Your task to perform on an android device: Search for "macbook air" on costco.com, select the first entry, and add it to the cart. Image 0: 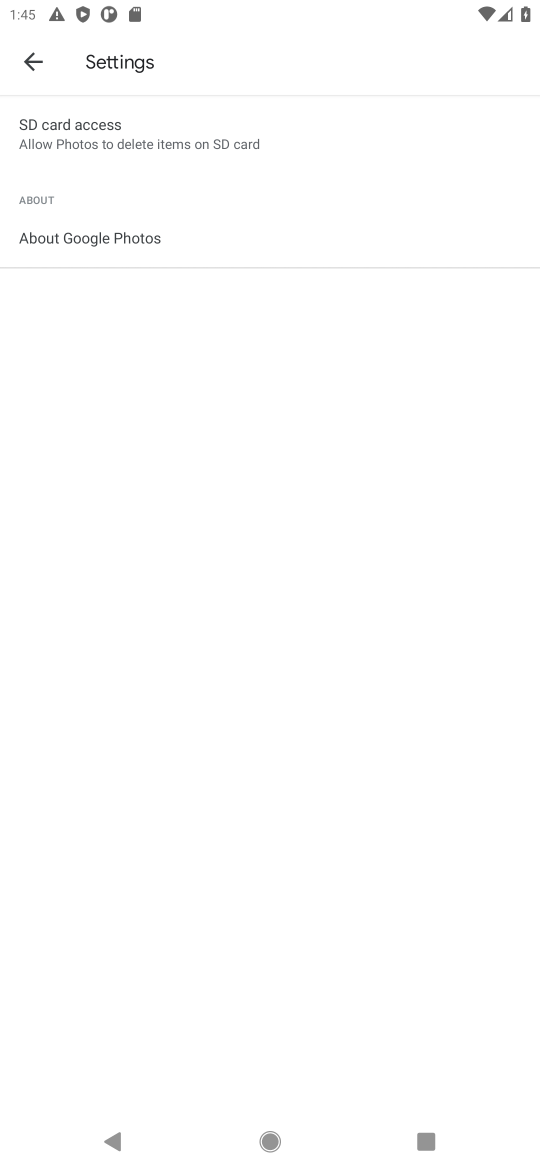
Step 0: press home button
Your task to perform on an android device: Search for "macbook air" on costco.com, select the first entry, and add it to the cart. Image 1: 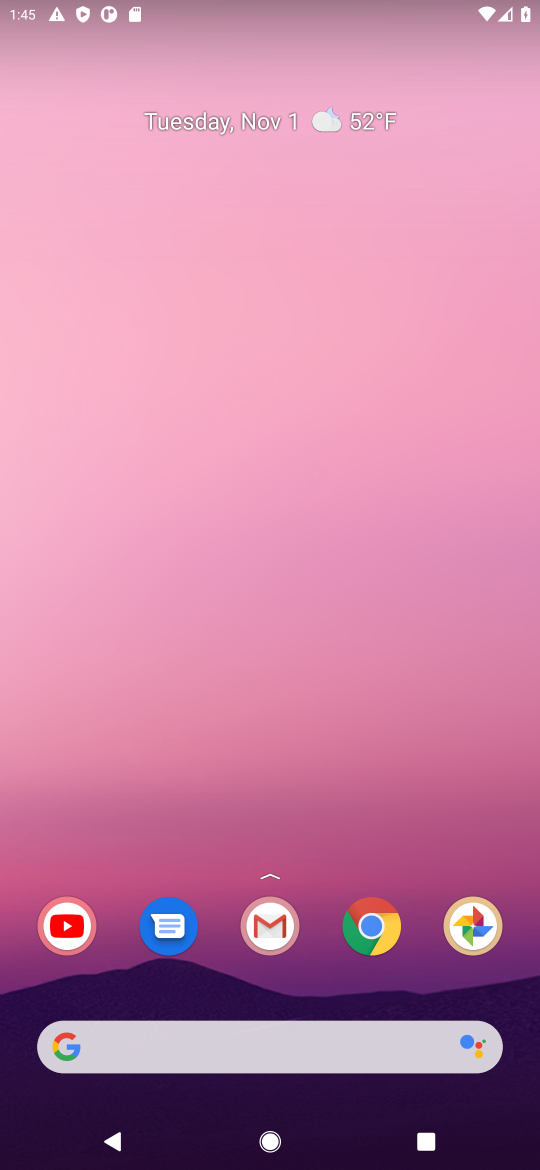
Step 1: click (381, 923)
Your task to perform on an android device: Search for "macbook air" on costco.com, select the first entry, and add it to the cart. Image 2: 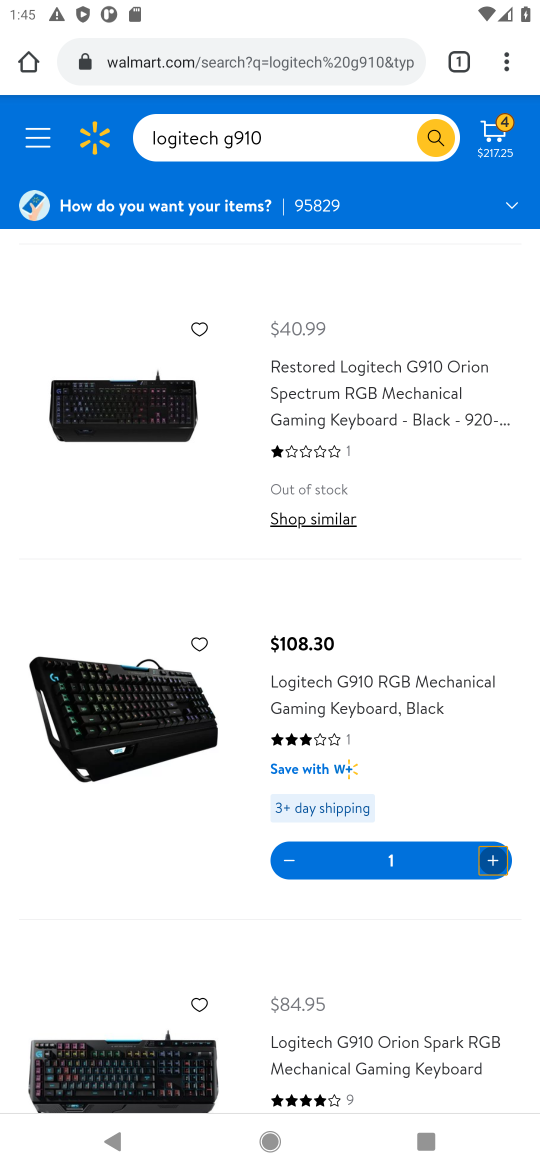
Step 2: click (302, 66)
Your task to perform on an android device: Search for "macbook air" on costco.com, select the first entry, and add it to the cart. Image 3: 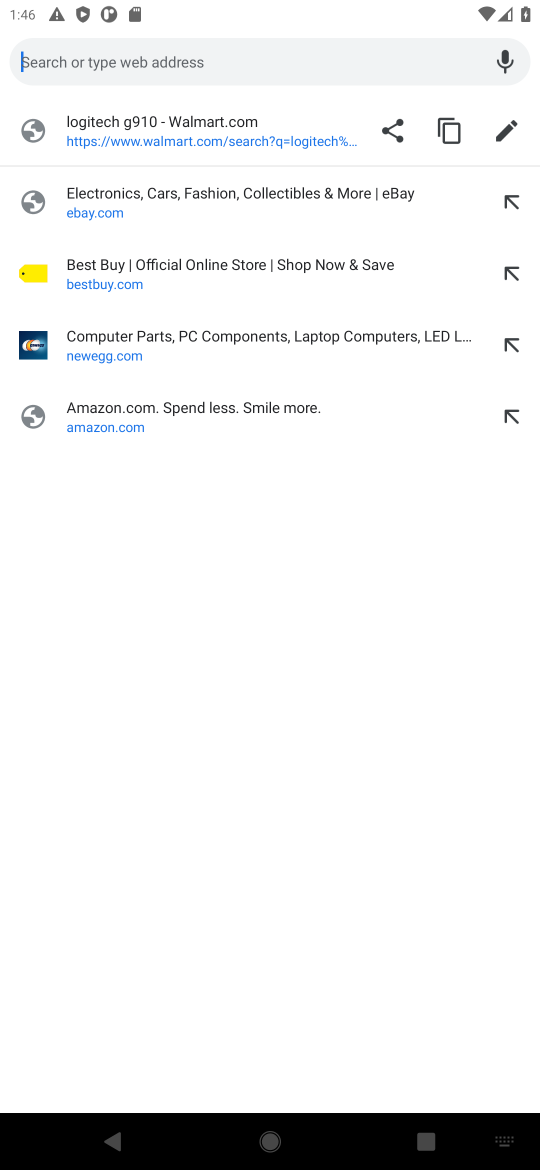
Step 3: type "costco.com"
Your task to perform on an android device: Search for "macbook air" on costco.com, select the first entry, and add it to the cart. Image 4: 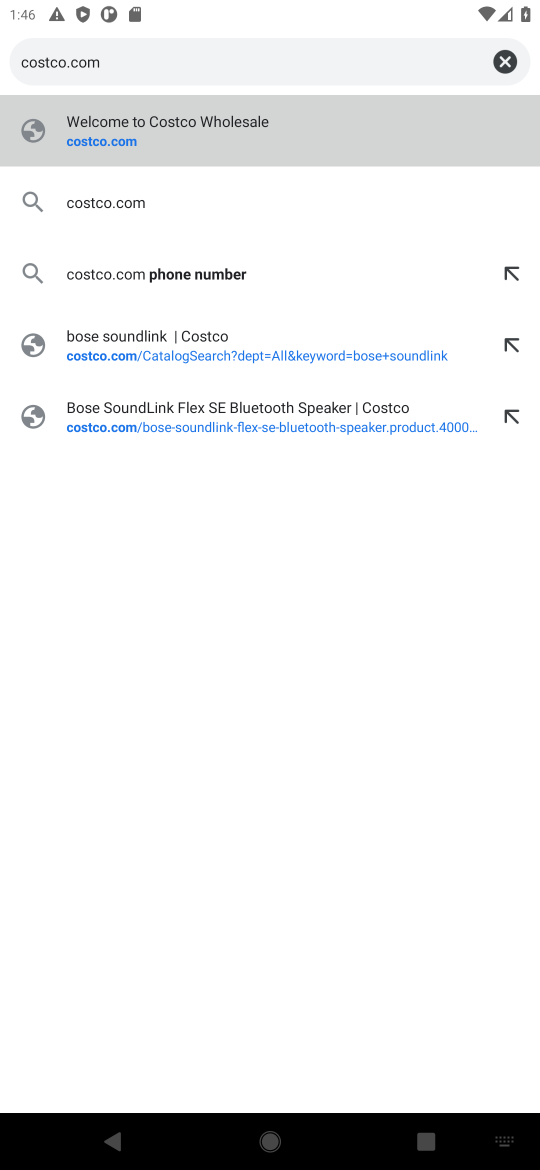
Step 4: click (217, 128)
Your task to perform on an android device: Search for "macbook air" on costco.com, select the first entry, and add it to the cart. Image 5: 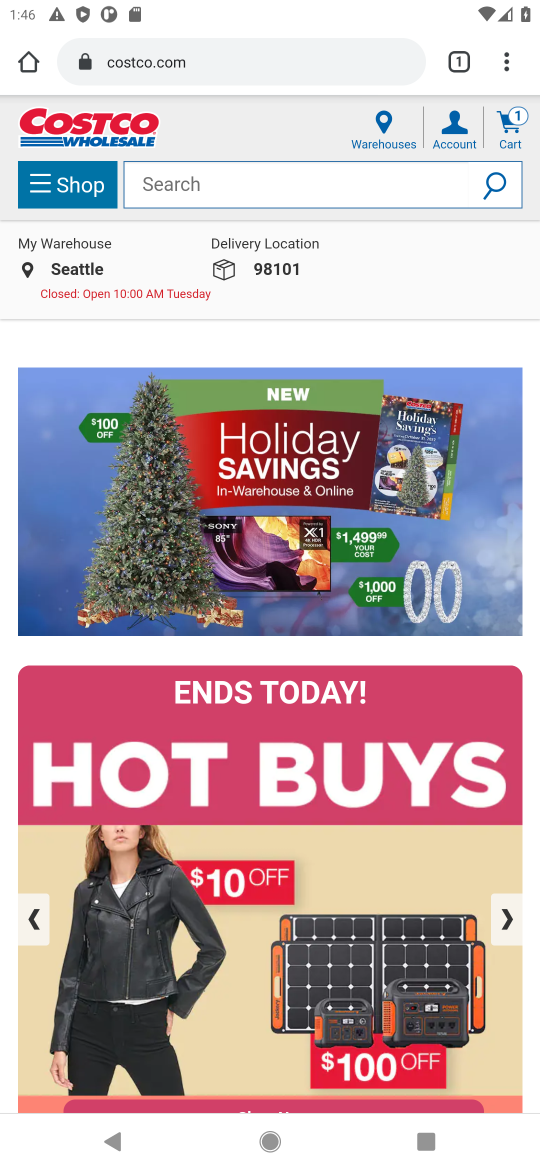
Step 5: click (254, 183)
Your task to perform on an android device: Search for "macbook air" on costco.com, select the first entry, and add it to the cart. Image 6: 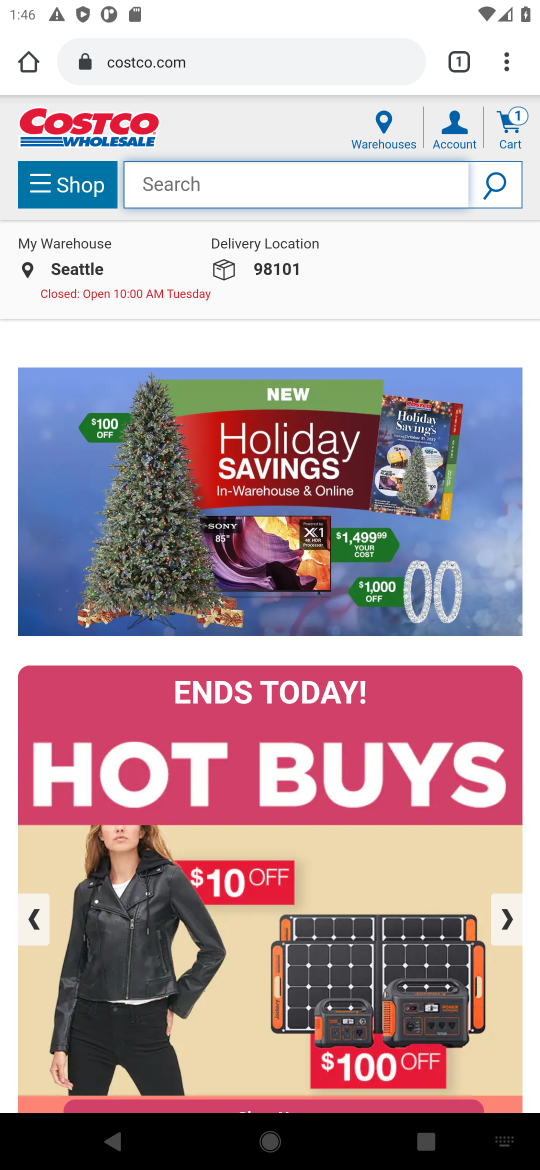
Step 6: type "macbook air"
Your task to perform on an android device: Search for "macbook air" on costco.com, select the first entry, and add it to the cart. Image 7: 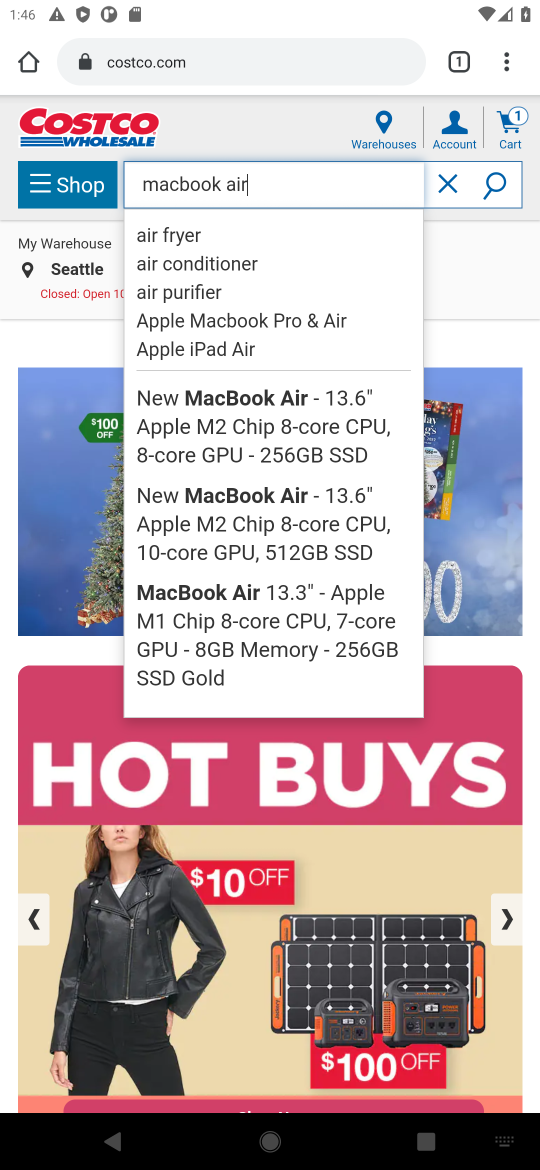
Step 7: press enter
Your task to perform on an android device: Search for "macbook air" on costco.com, select the first entry, and add it to the cart. Image 8: 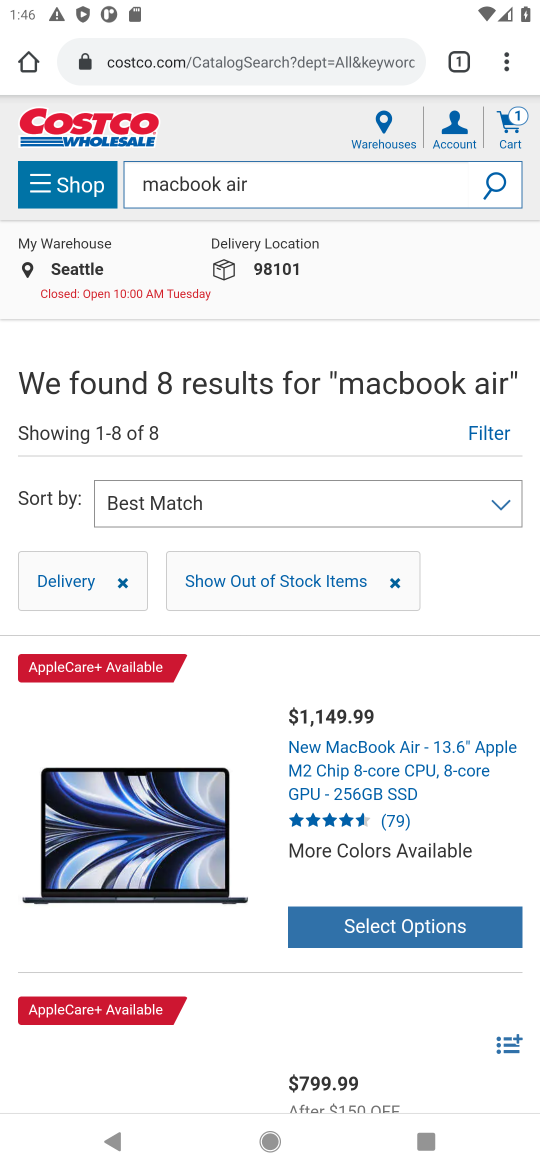
Step 8: drag from (254, 950) to (277, 452)
Your task to perform on an android device: Search for "macbook air" on costco.com, select the first entry, and add it to the cart. Image 9: 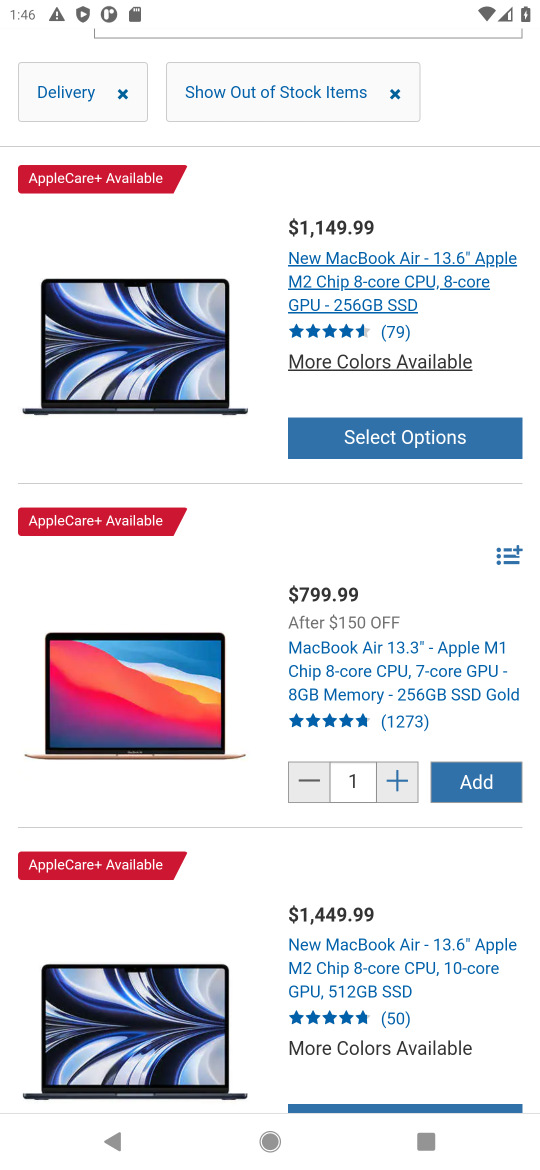
Step 9: click (343, 445)
Your task to perform on an android device: Search for "macbook air" on costco.com, select the first entry, and add it to the cart. Image 10: 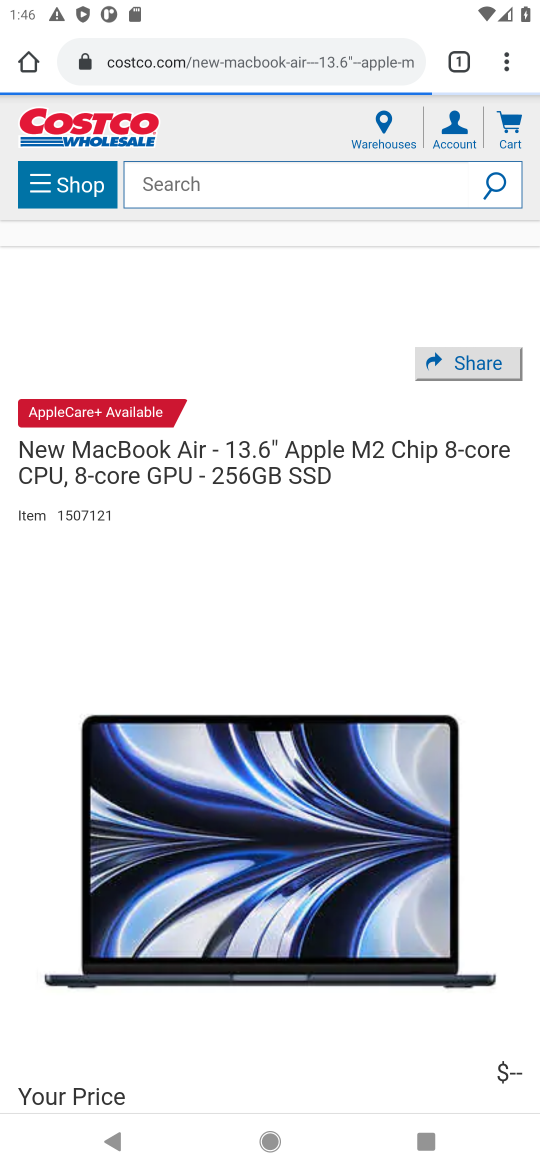
Step 10: drag from (489, 667) to (446, 248)
Your task to perform on an android device: Search for "macbook air" on costco.com, select the first entry, and add it to the cart. Image 11: 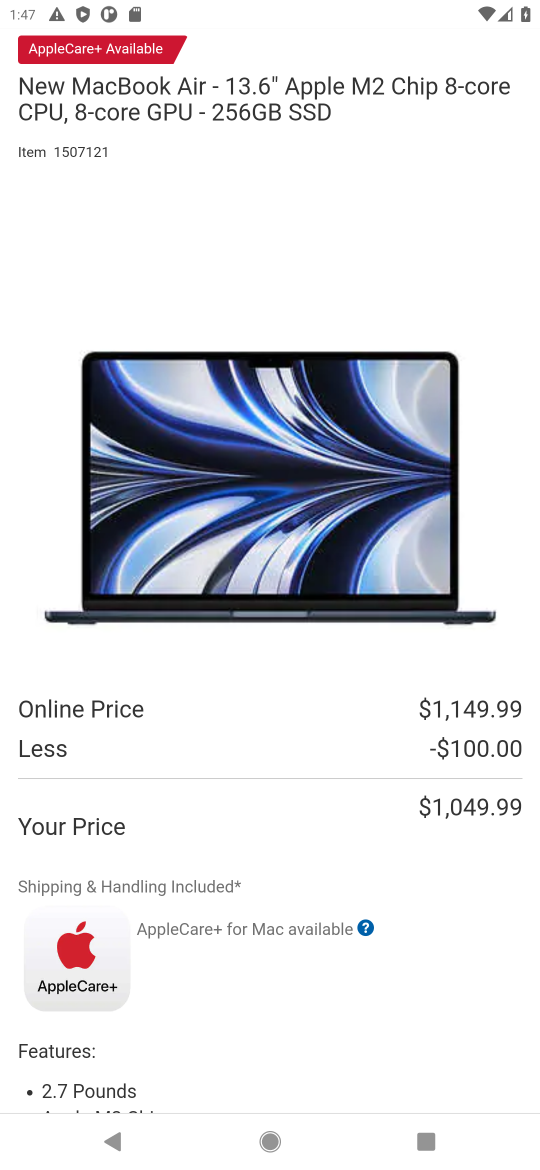
Step 11: drag from (417, 911) to (282, 79)
Your task to perform on an android device: Search for "macbook air" on costco.com, select the first entry, and add it to the cart. Image 12: 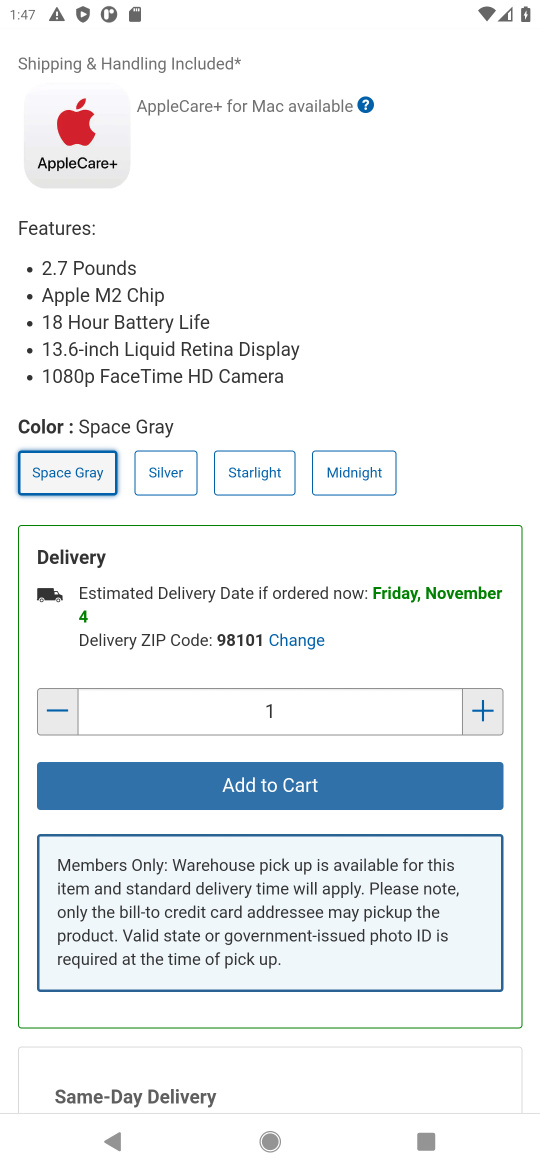
Step 12: click (298, 785)
Your task to perform on an android device: Search for "macbook air" on costco.com, select the first entry, and add it to the cart. Image 13: 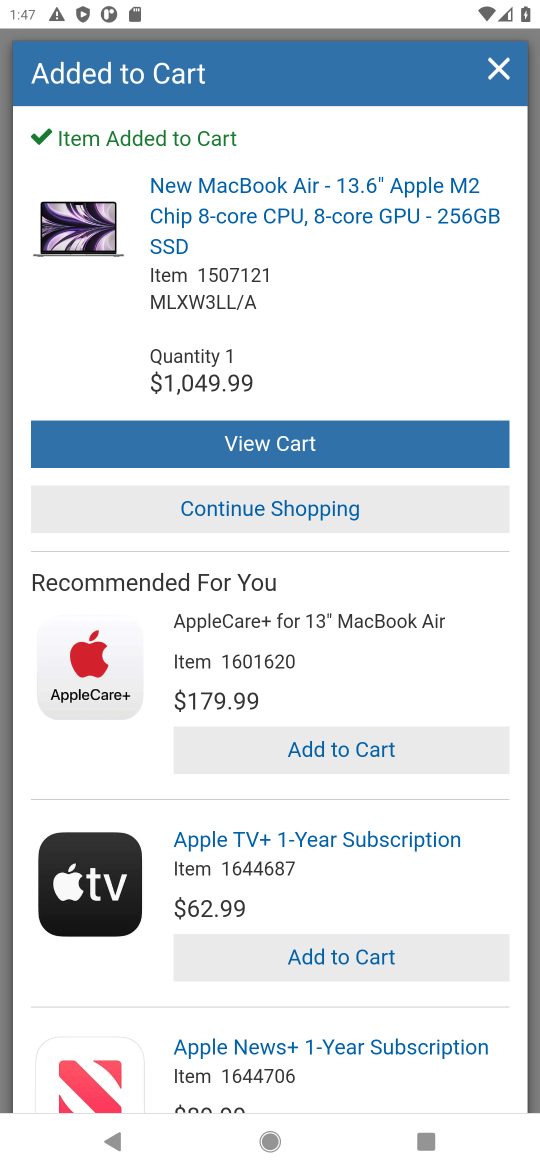
Step 13: task complete